Your task to perform on an android device: toggle data saver in the chrome app Image 0: 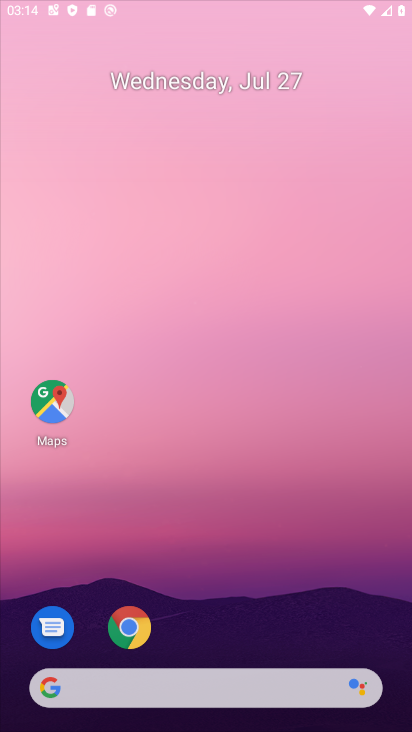
Step 0: drag from (247, 240) to (222, 124)
Your task to perform on an android device: toggle data saver in the chrome app Image 1: 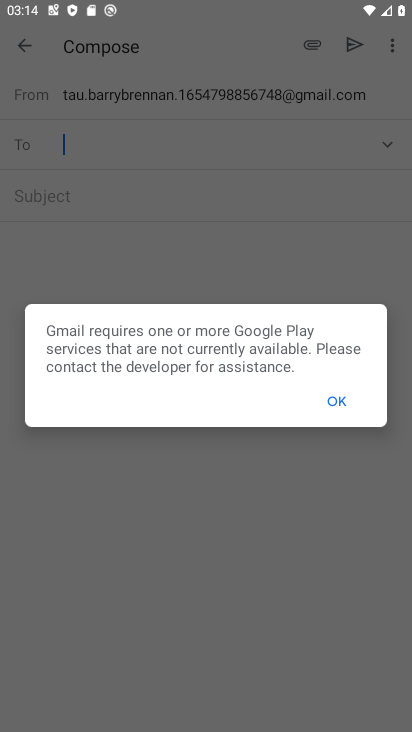
Step 1: drag from (193, 584) to (140, 35)
Your task to perform on an android device: toggle data saver in the chrome app Image 2: 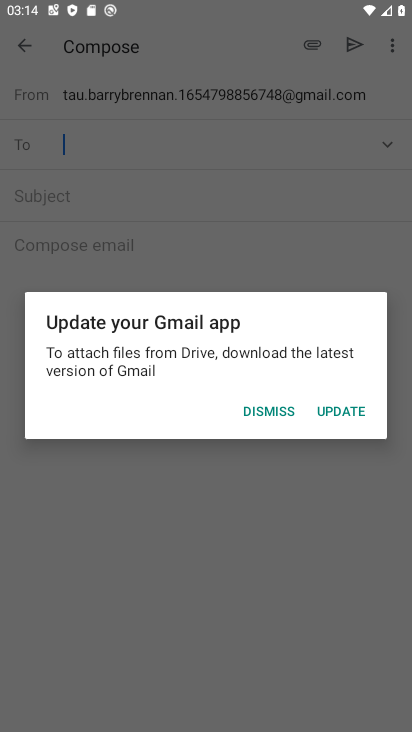
Step 2: click (277, 401)
Your task to perform on an android device: toggle data saver in the chrome app Image 3: 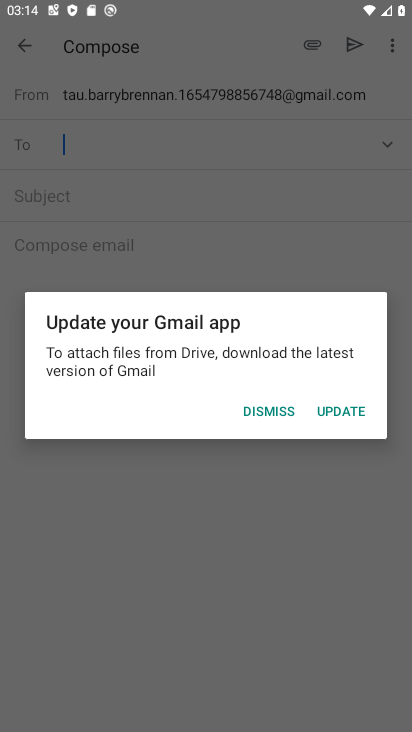
Step 3: click (276, 401)
Your task to perform on an android device: toggle data saver in the chrome app Image 4: 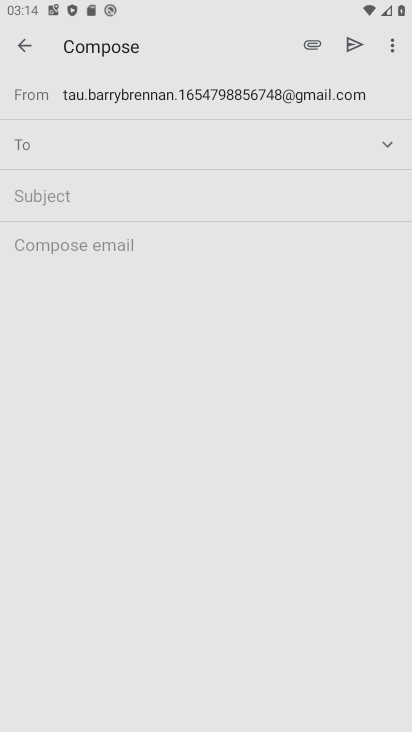
Step 4: click (276, 401)
Your task to perform on an android device: toggle data saver in the chrome app Image 5: 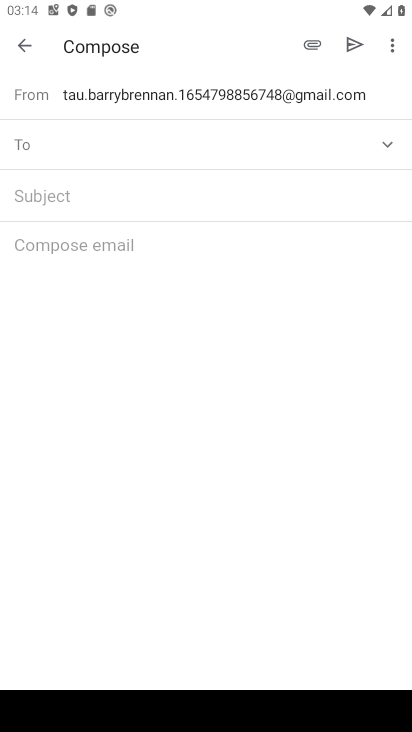
Step 5: click (17, 45)
Your task to perform on an android device: toggle data saver in the chrome app Image 6: 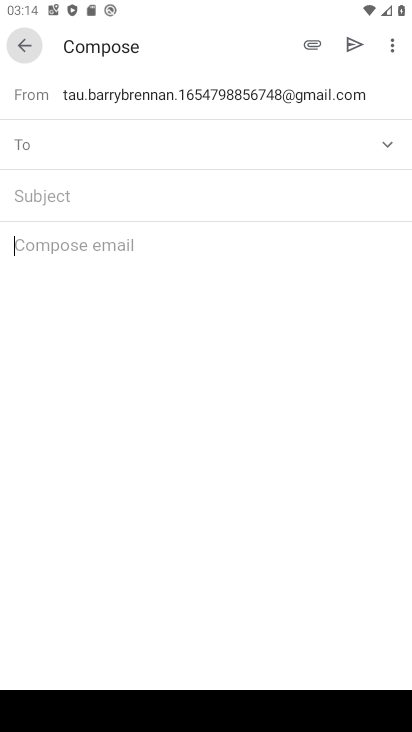
Step 6: click (20, 51)
Your task to perform on an android device: toggle data saver in the chrome app Image 7: 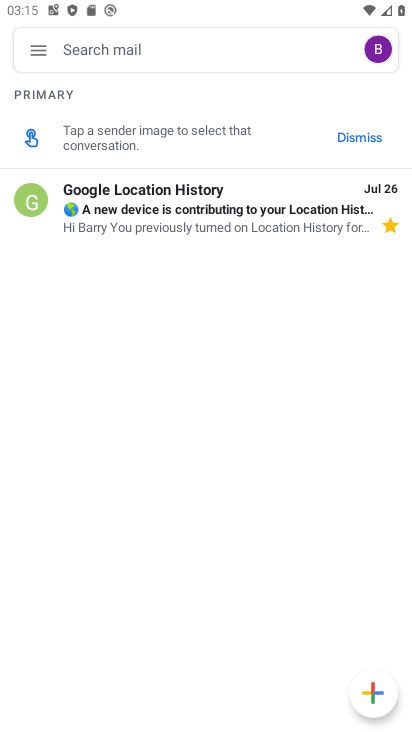
Step 7: click (30, 57)
Your task to perform on an android device: toggle data saver in the chrome app Image 8: 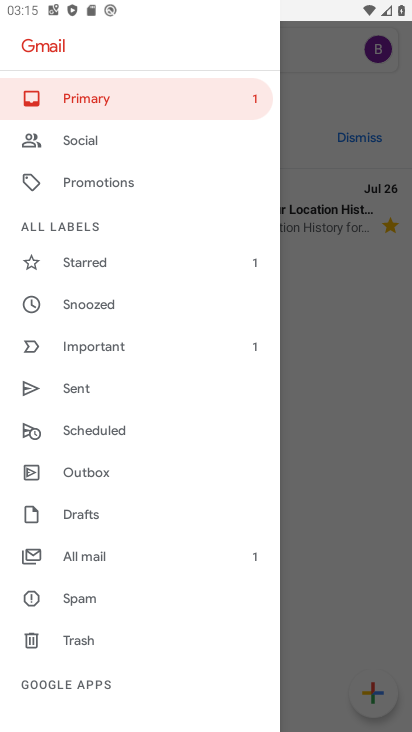
Step 8: press back button
Your task to perform on an android device: toggle data saver in the chrome app Image 9: 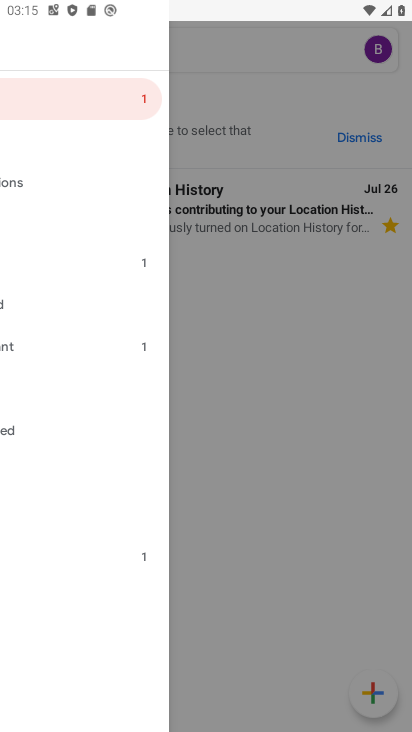
Step 9: press back button
Your task to perform on an android device: toggle data saver in the chrome app Image 10: 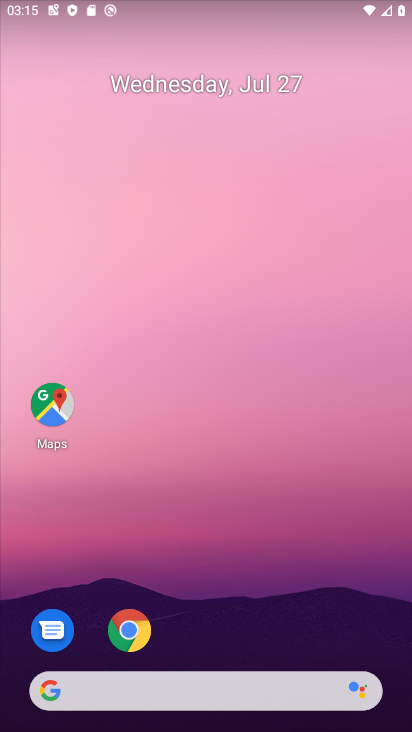
Step 10: drag from (235, 533) to (215, 128)
Your task to perform on an android device: toggle data saver in the chrome app Image 11: 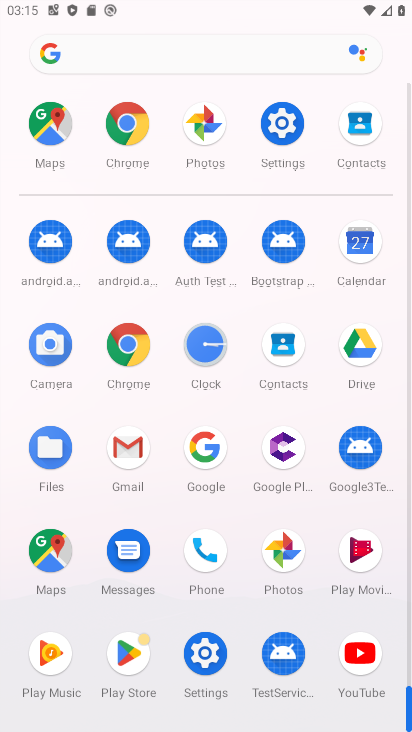
Step 11: click (136, 130)
Your task to perform on an android device: toggle data saver in the chrome app Image 12: 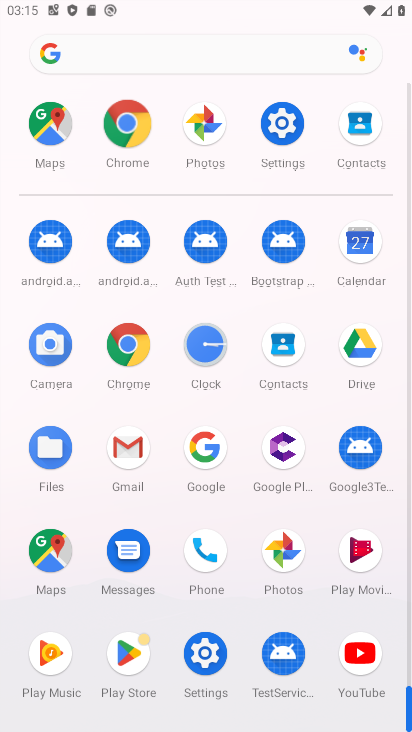
Step 12: click (133, 131)
Your task to perform on an android device: toggle data saver in the chrome app Image 13: 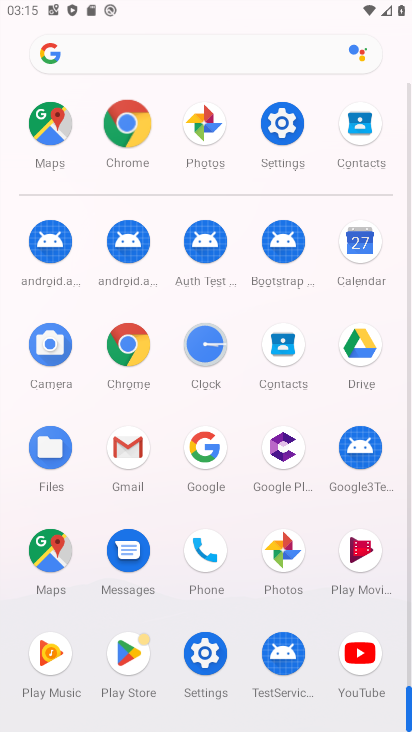
Step 13: click (132, 132)
Your task to perform on an android device: toggle data saver in the chrome app Image 14: 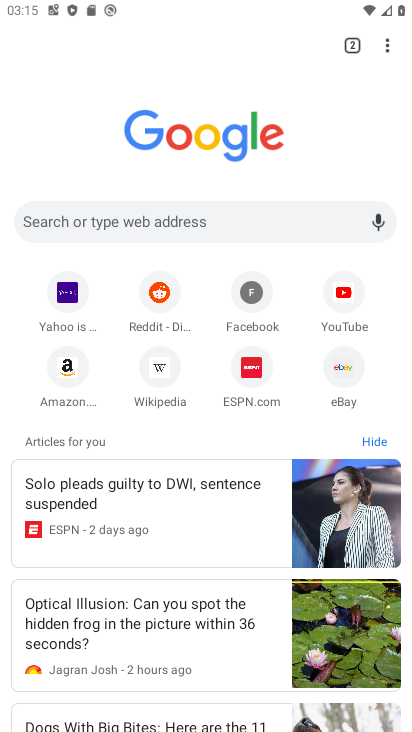
Step 14: click (387, 51)
Your task to perform on an android device: toggle data saver in the chrome app Image 15: 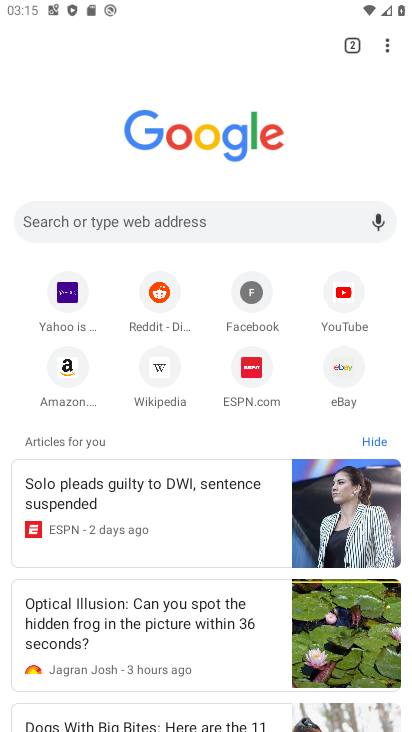
Step 15: click (387, 55)
Your task to perform on an android device: toggle data saver in the chrome app Image 16: 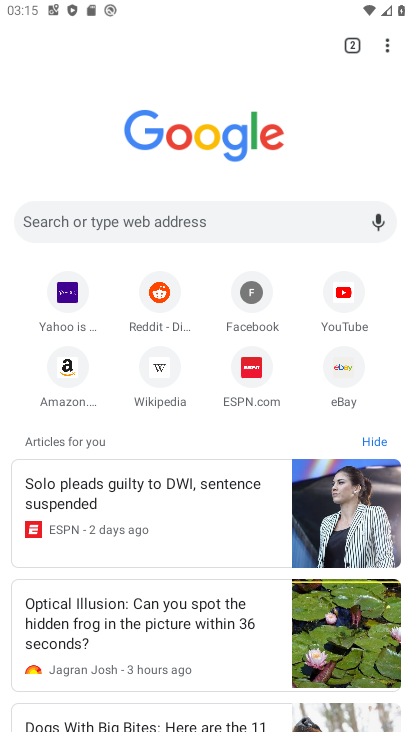
Step 16: click (386, 56)
Your task to perform on an android device: toggle data saver in the chrome app Image 17: 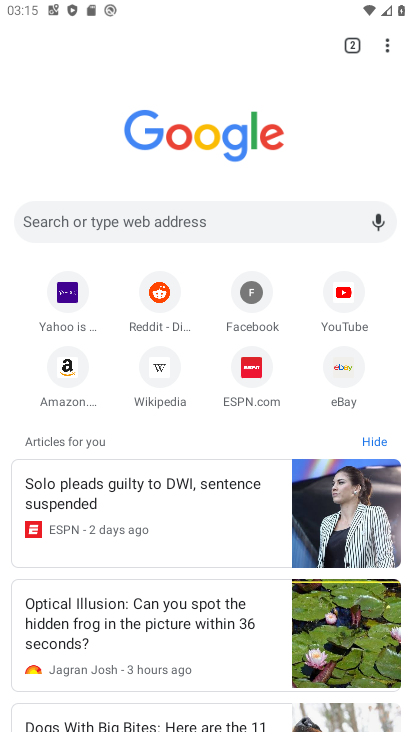
Step 17: drag from (376, 40) to (214, 375)
Your task to perform on an android device: toggle data saver in the chrome app Image 18: 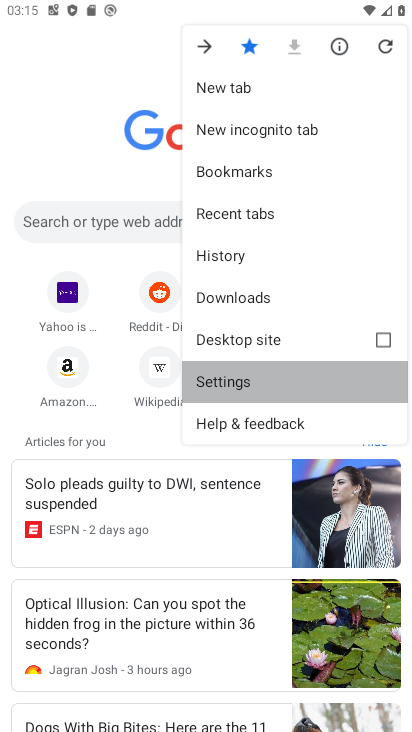
Step 18: click (214, 376)
Your task to perform on an android device: toggle data saver in the chrome app Image 19: 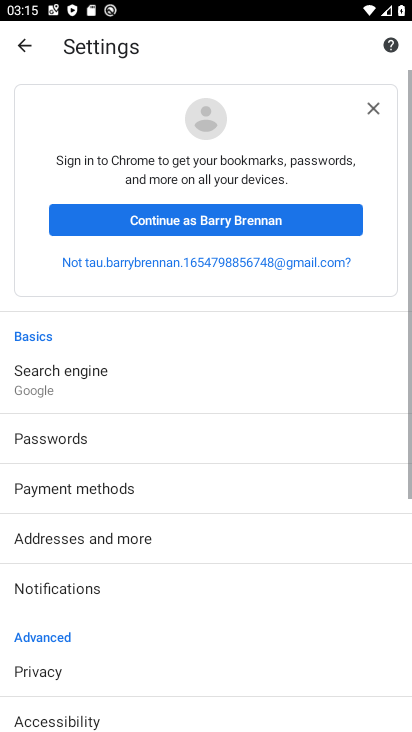
Step 19: drag from (143, 614) to (82, 285)
Your task to perform on an android device: toggle data saver in the chrome app Image 20: 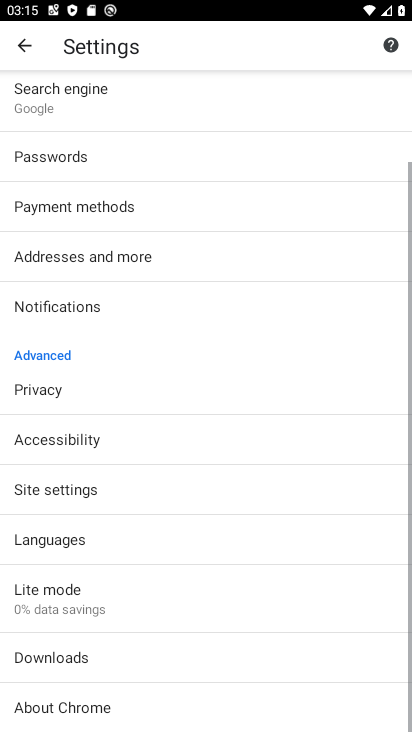
Step 20: click (134, 488)
Your task to perform on an android device: toggle data saver in the chrome app Image 21: 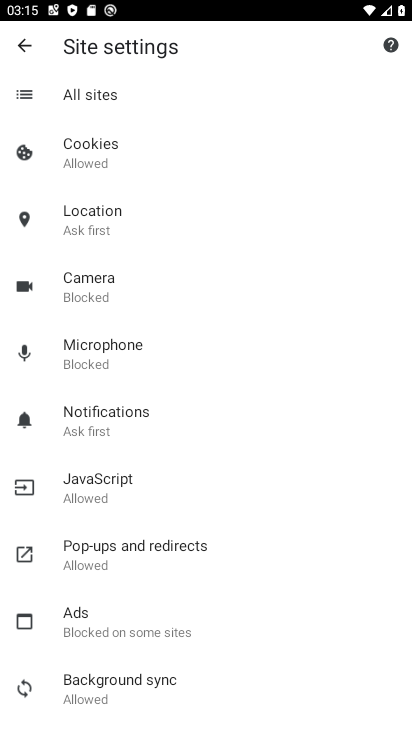
Step 21: click (19, 40)
Your task to perform on an android device: toggle data saver in the chrome app Image 22: 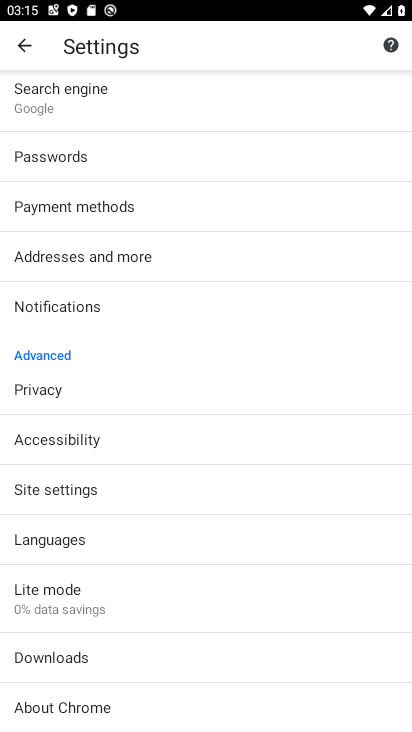
Step 22: click (48, 594)
Your task to perform on an android device: toggle data saver in the chrome app Image 23: 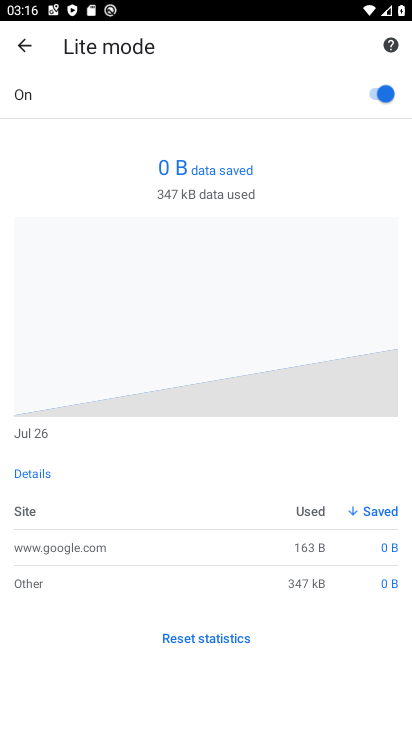
Step 23: task complete